Your task to perform on an android device: change the clock style Image 0: 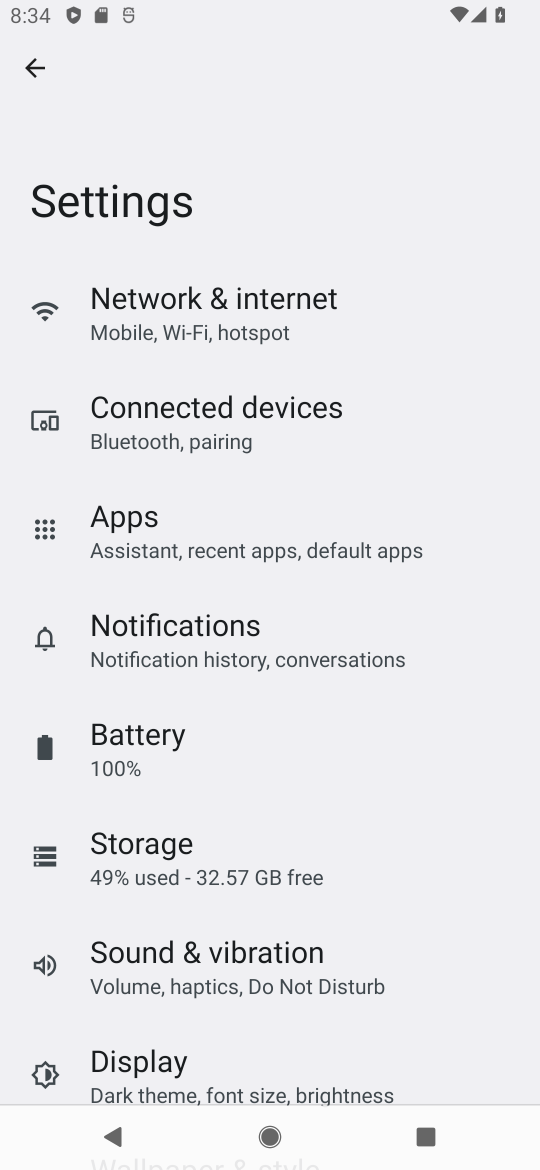
Step 0: press back button
Your task to perform on an android device: change the clock style Image 1: 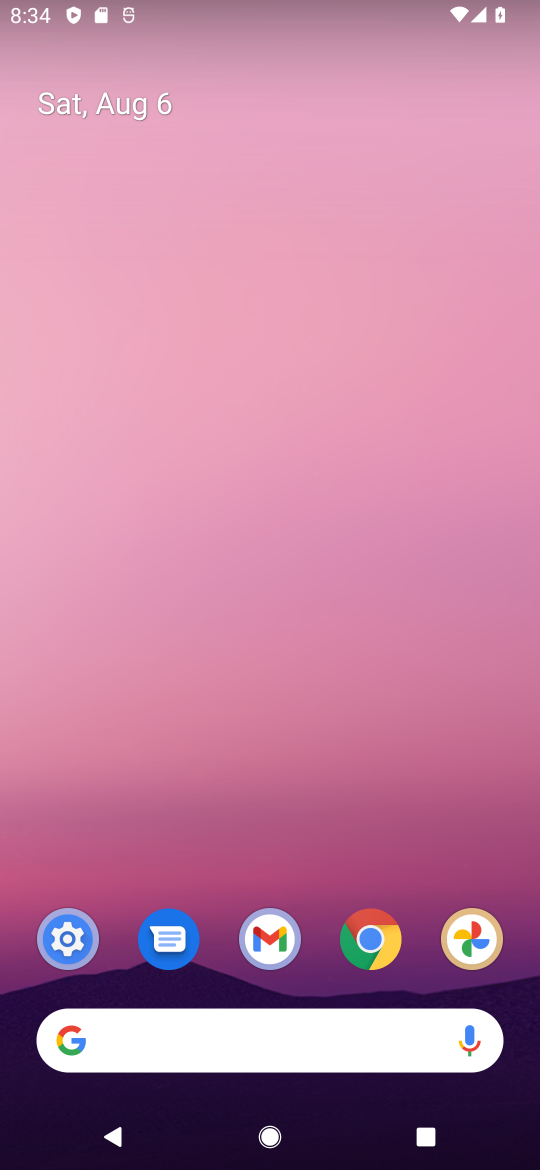
Step 1: drag from (332, 987) to (286, 367)
Your task to perform on an android device: change the clock style Image 2: 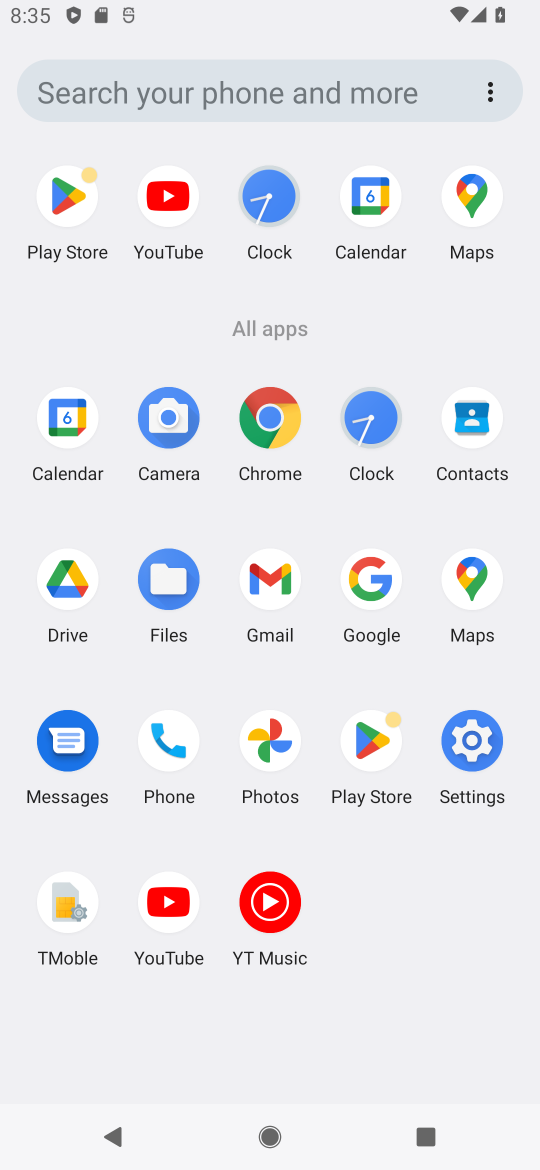
Step 2: click (379, 426)
Your task to perform on an android device: change the clock style Image 3: 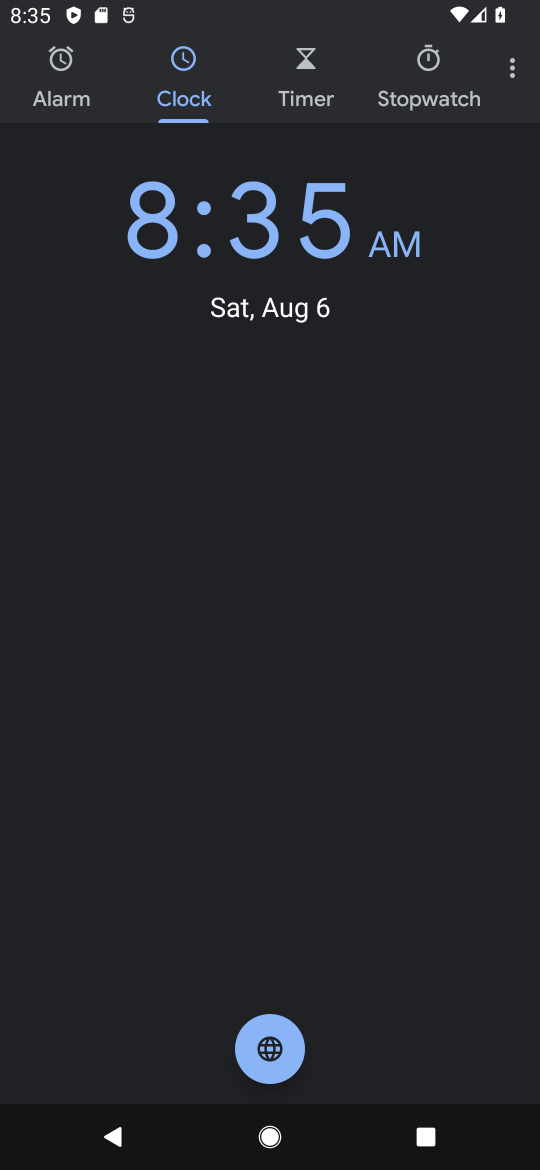
Step 3: click (514, 94)
Your task to perform on an android device: change the clock style Image 4: 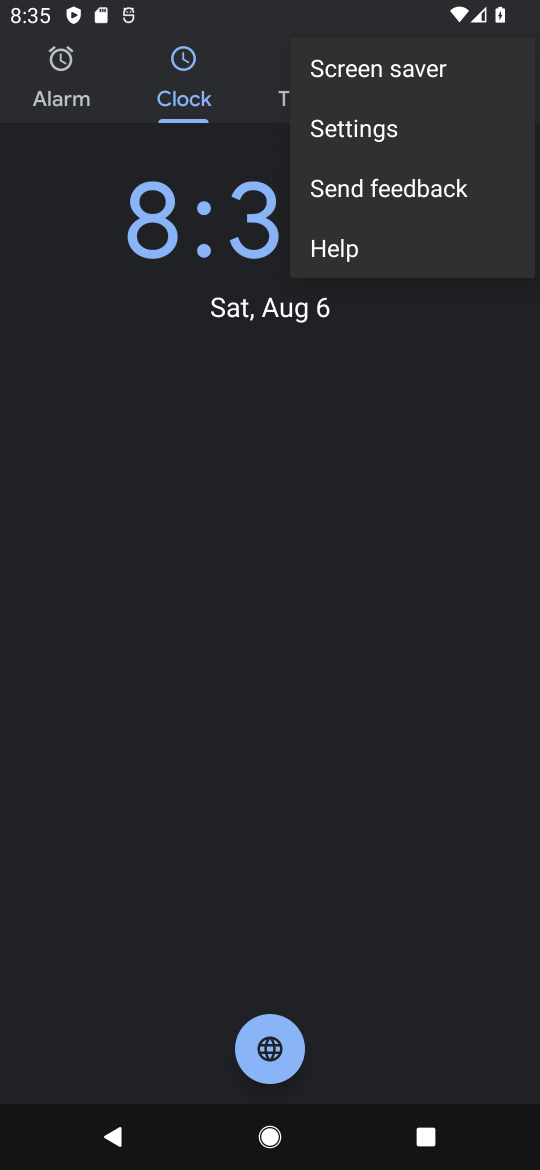
Step 4: click (392, 156)
Your task to perform on an android device: change the clock style Image 5: 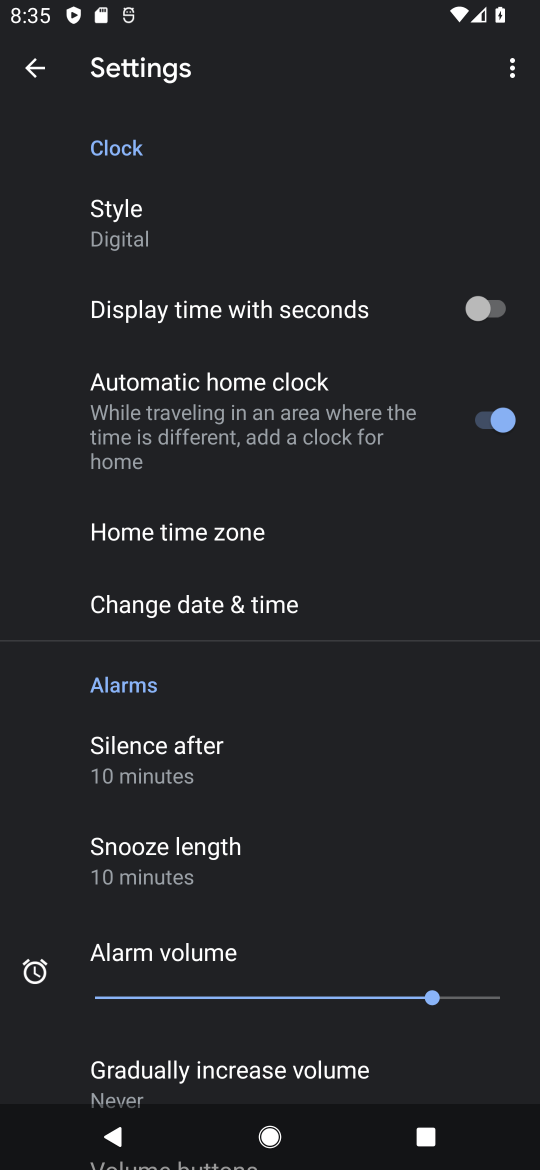
Step 5: click (80, 246)
Your task to perform on an android device: change the clock style Image 6: 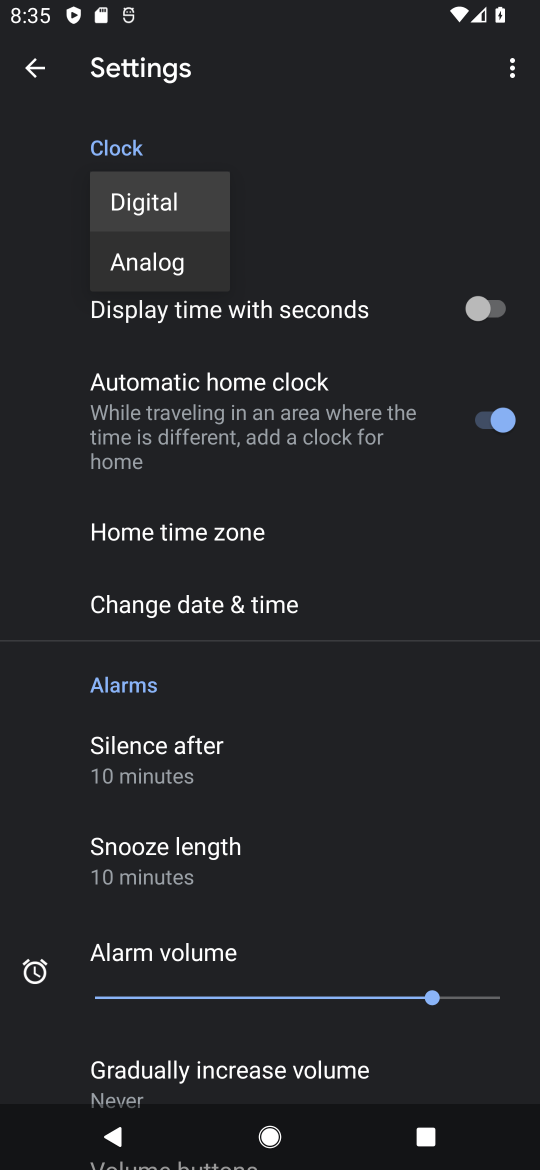
Step 6: click (159, 279)
Your task to perform on an android device: change the clock style Image 7: 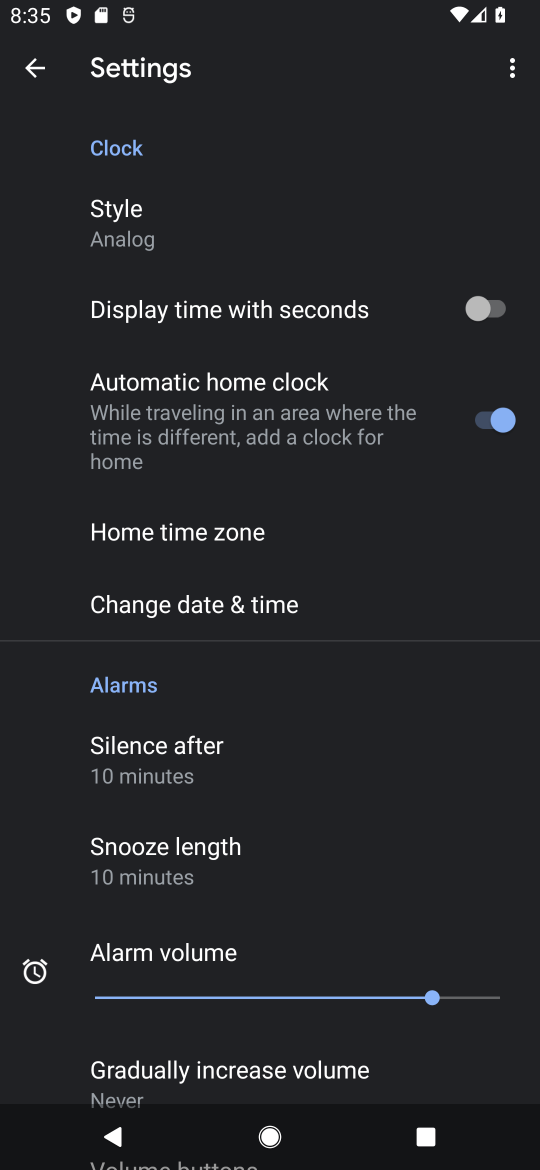
Step 7: task complete